Your task to perform on an android device: Open display settings Image 0: 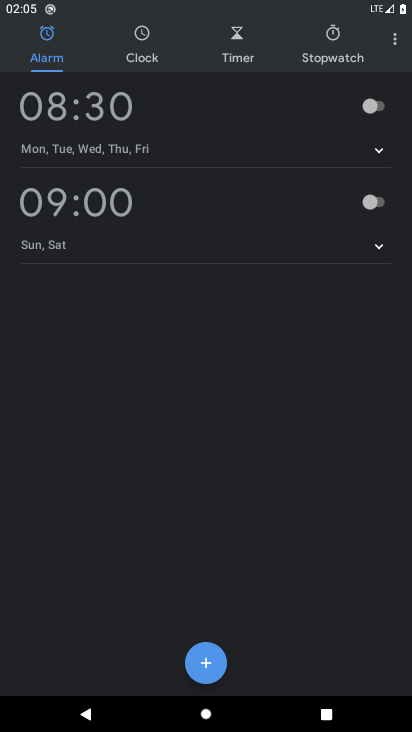
Step 0: press home button
Your task to perform on an android device: Open display settings Image 1: 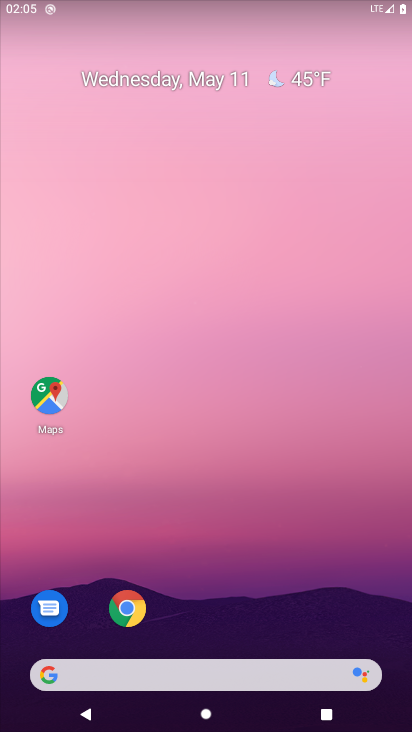
Step 1: drag from (220, 643) to (215, 101)
Your task to perform on an android device: Open display settings Image 2: 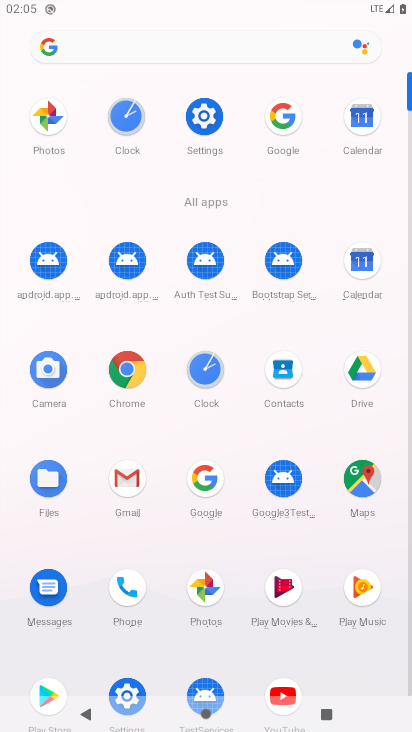
Step 2: click (202, 109)
Your task to perform on an android device: Open display settings Image 3: 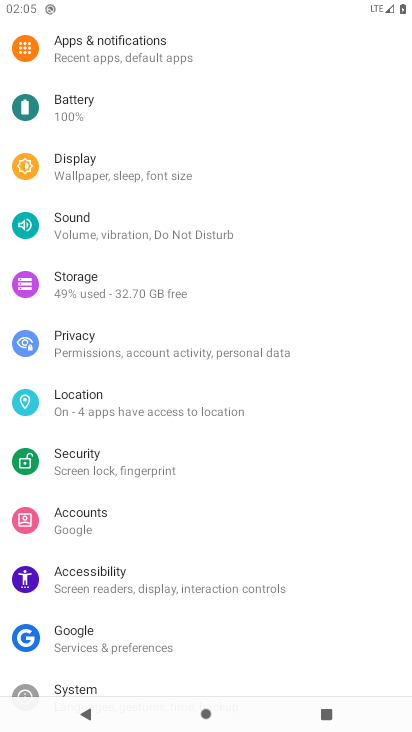
Step 3: click (95, 160)
Your task to perform on an android device: Open display settings Image 4: 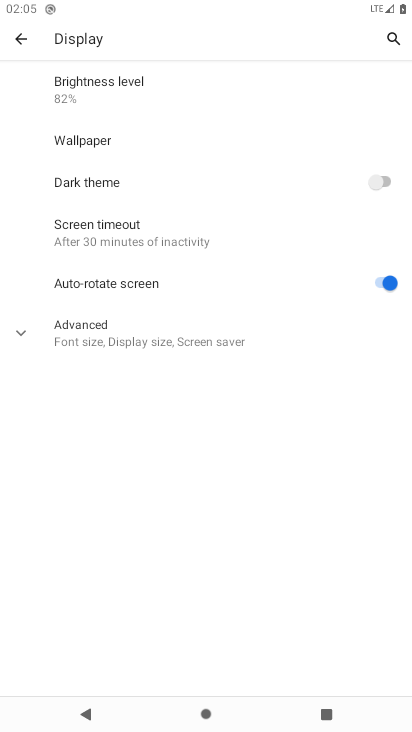
Step 4: click (20, 327)
Your task to perform on an android device: Open display settings Image 5: 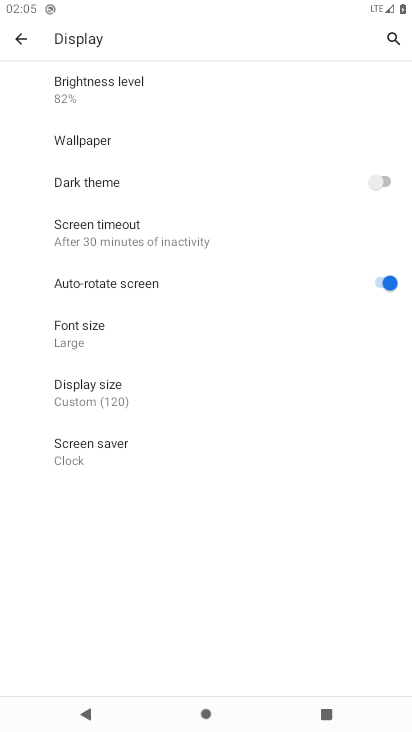
Step 5: task complete